Your task to perform on an android device: open app "Google Docs" Image 0: 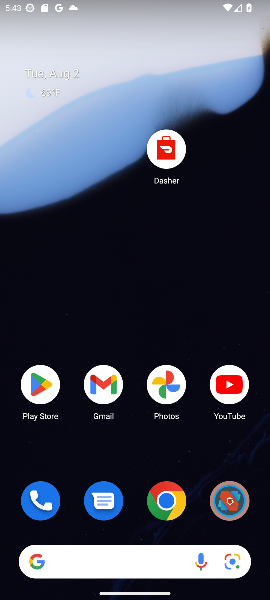
Step 0: click (38, 391)
Your task to perform on an android device: open app "Google Docs" Image 1: 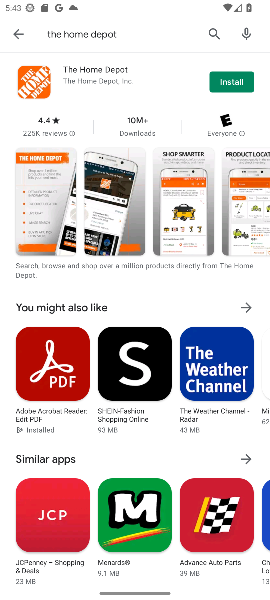
Step 1: click (208, 35)
Your task to perform on an android device: open app "Google Docs" Image 2: 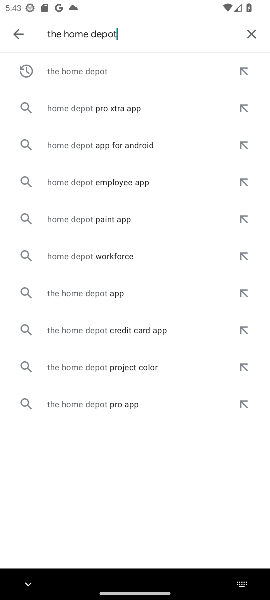
Step 2: click (247, 32)
Your task to perform on an android device: open app "Google Docs" Image 3: 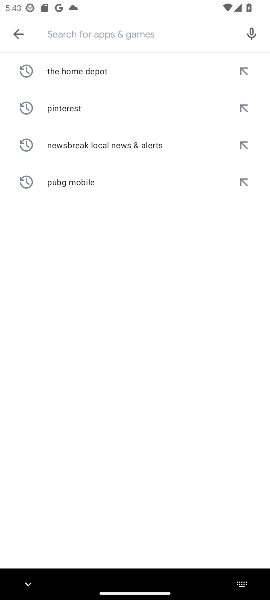
Step 3: type "Google Docs"
Your task to perform on an android device: open app "Google Docs" Image 4: 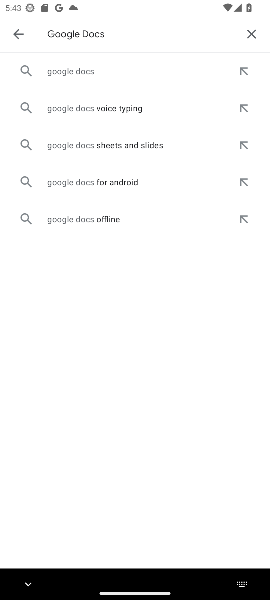
Step 4: click (61, 68)
Your task to perform on an android device: open app "Google Docs" Image 5: 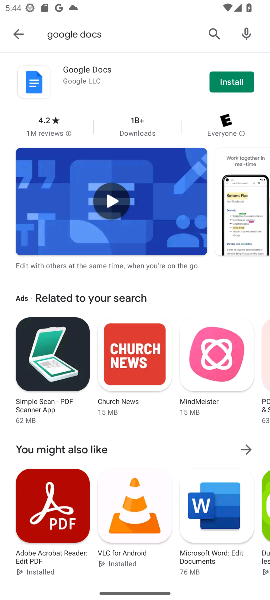
Step 5: task complete